Your task to perform on an android device: delete browsing data in the chrome app Image 0: 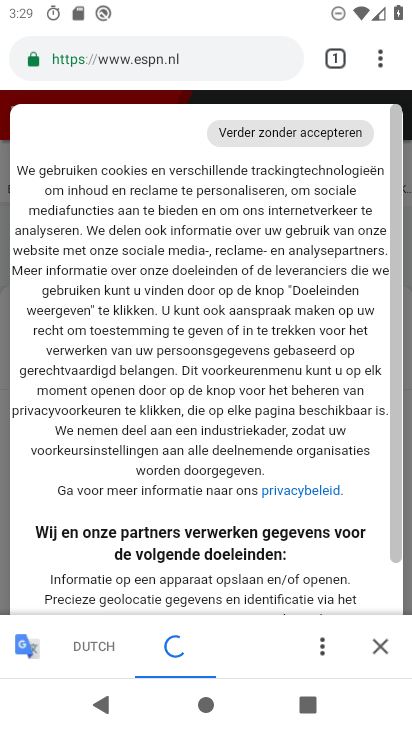
Step 0: press back button
Your task to perform on an android device: delete browsing data in the chrome app Image 1: 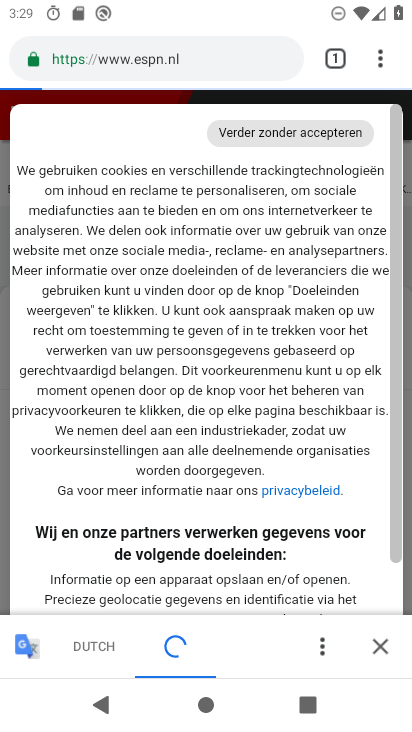
Step 1: press home button
Your task to perform on an android device: delete browsing data in the chrome app Image 2: 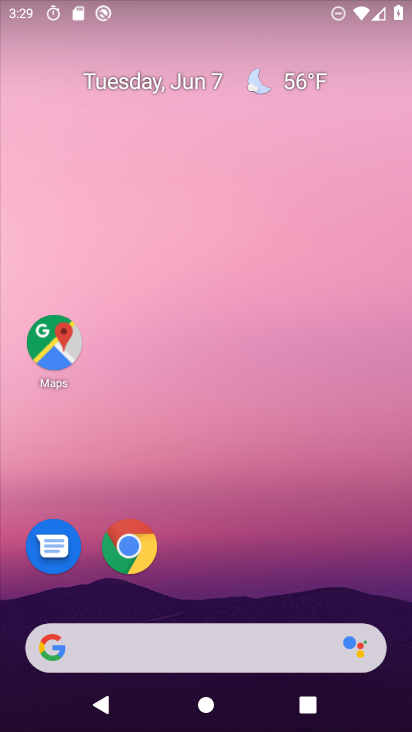
Step 2: click (129, 544)
Your task to perform on an android device: delete browsing data in the chrome app Image 3: 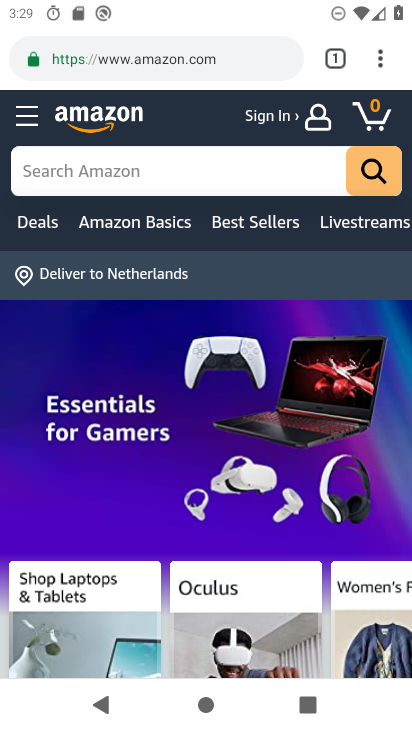
Step 3: drag from (382, 52) to (174, 328)
Your task to perform on an android device: delete browsing data in the chrome app Image 4: 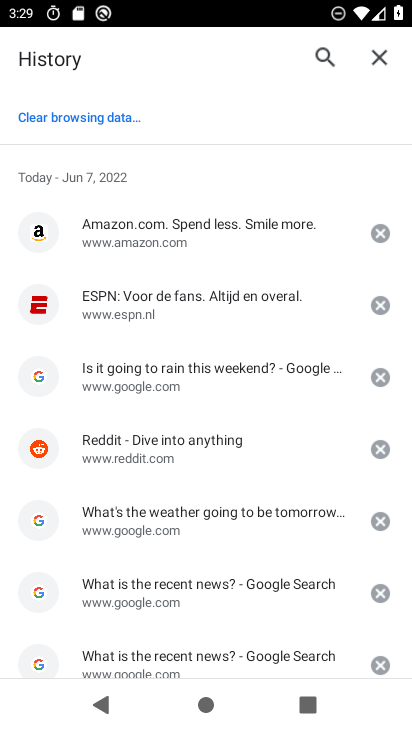
Step 4: click (114, 105)
Your task to perform on an android device: delete browsing data in the chrome app Image 5: 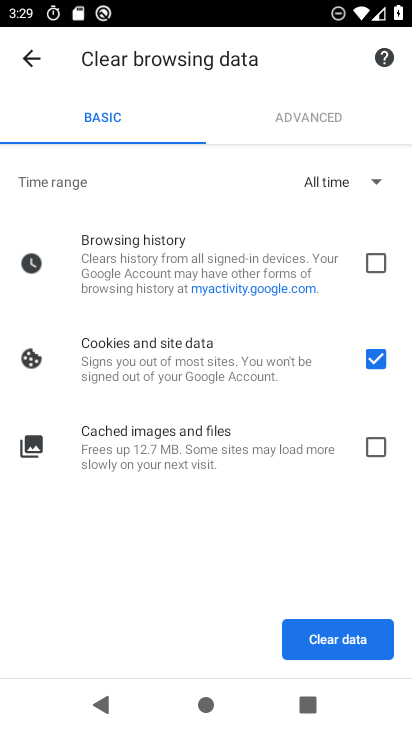
Step 5: click (369, 253)
Your task to perform on an android device: delete browsing data in the chrome app Image 6: 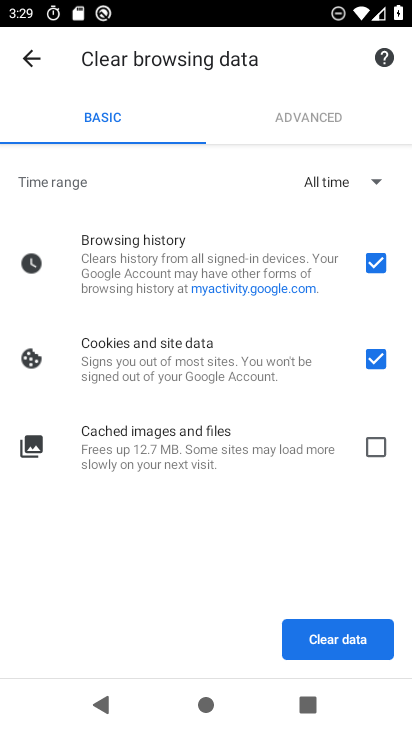
Step 6: click (364, 358)
Your task to perform on an android device: delete browsing data in the chrome app Image 7: 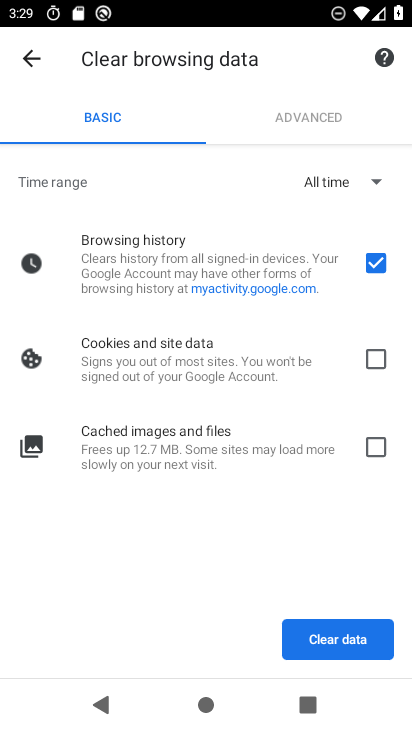
Step 7: click (339, 637)
Your task to perform on an android device: delete browsing data in the chrome app Image 8: 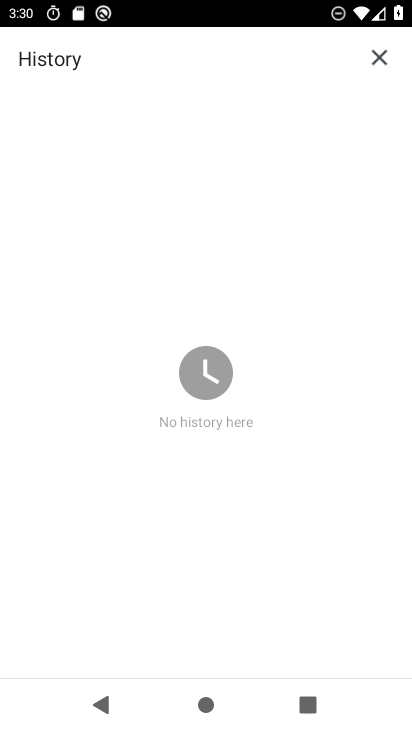
Step 8: task complete